Your task to perform on an android device: Go to sound settings Image 0: 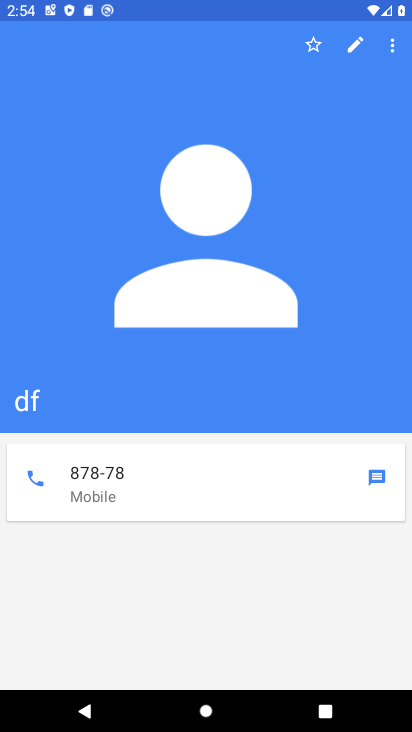
Step 0: press home button
Your task to perform on an android device: Go to sound settings Image 1: 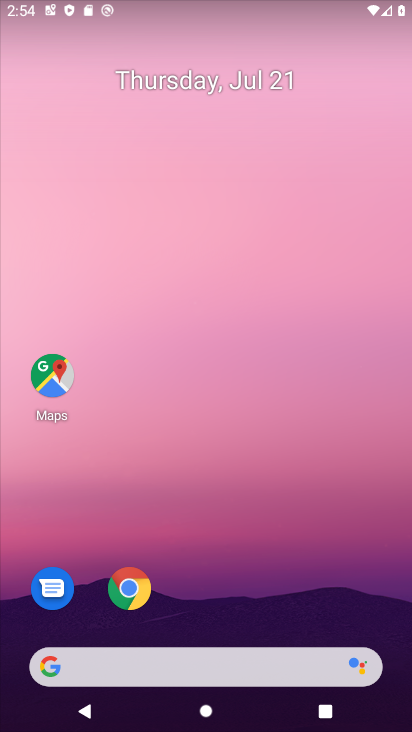
Step 1: drag from (217, 559) to (192, 170)
Your task to perform on an android device: Go to sound settings Image 2: 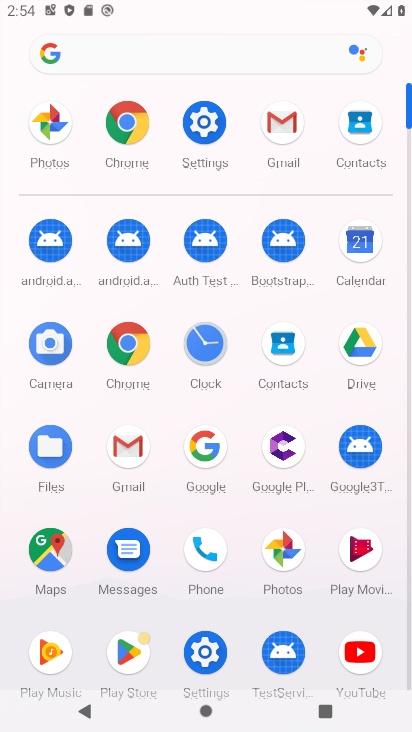
Step 2: click (206, 127)
Your task to perform on an android device: Go to sound settings Image 3: 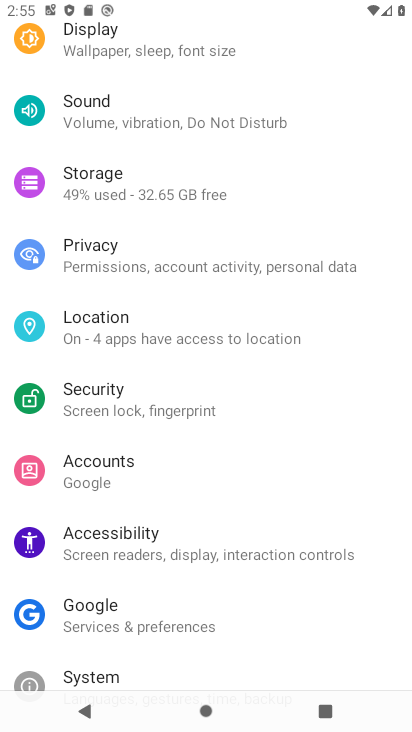
Step 3: click (91, 103)
Your task to perform on an android device: Go to sound settings Image 4: 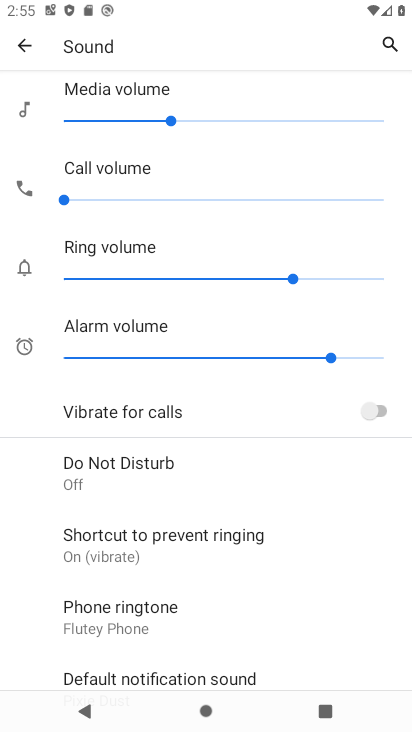
Step 4: task complete